Your task to perform on an android device: Open Android settings Image 0: 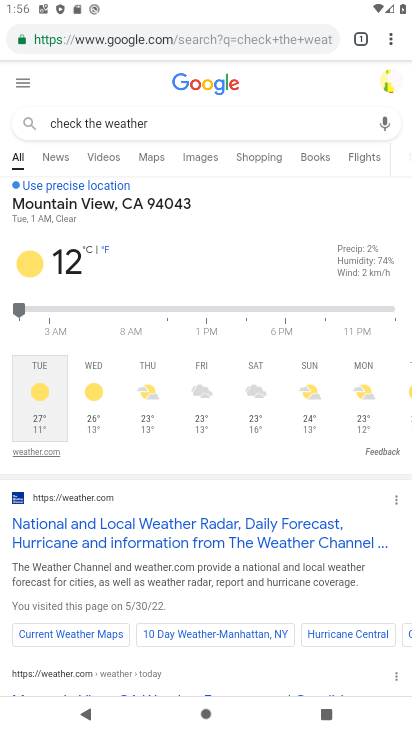
Step 0: press home button
Your task to perform on an android device: Open Android settings Image 1: 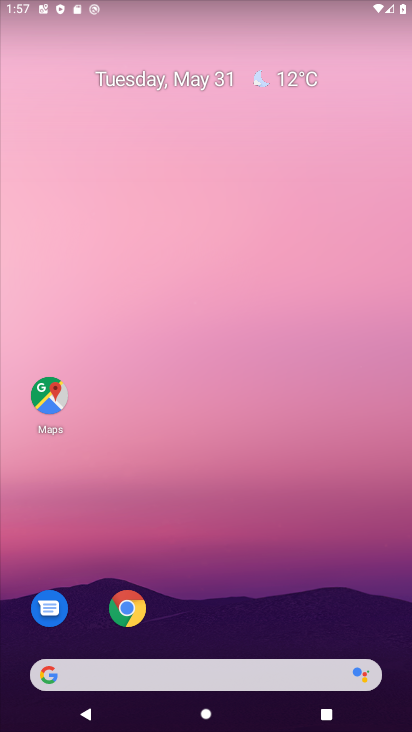
Step 1: drag from (277, 560) to (295, 166)
Your task to perform on an android device: Open Android settings Image 2: 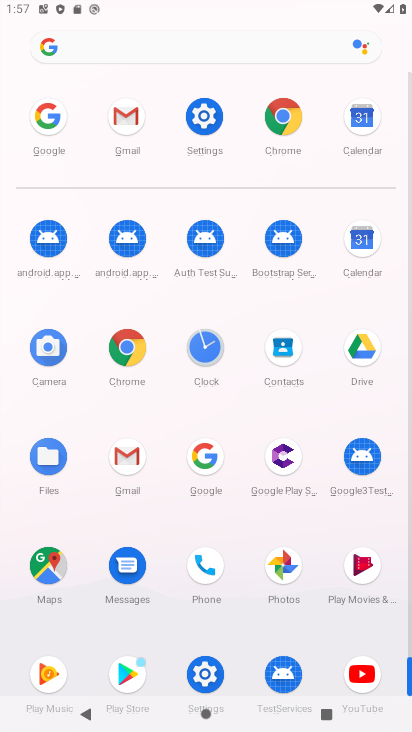
Step 2: click (218, 141)
Your task to perform on an android device: Open Android settings Image 3: 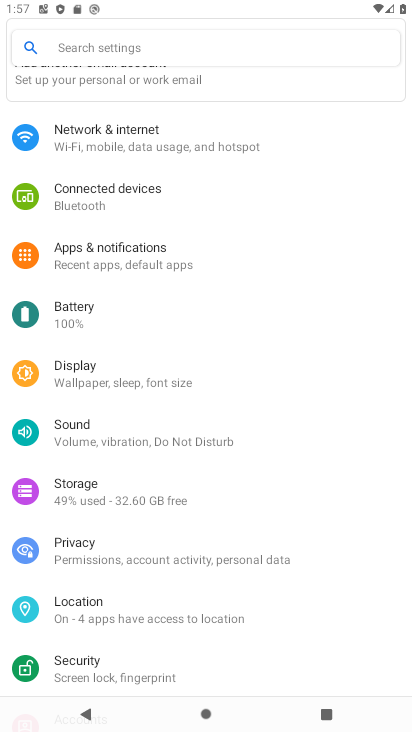
Step 3: drag from (163, 674) to (225, 283)
Your task to perform on an android device: Open Android settings Image 4: 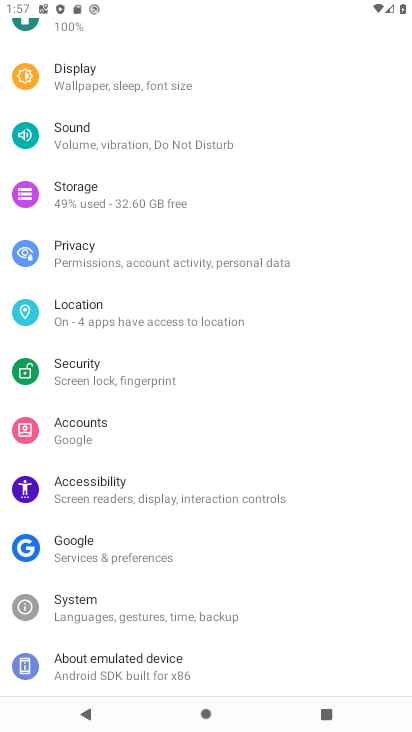
Step 4: drag from (220, 677) to (286, 228)
Your task to perform on an android device: Open Android settings Image 5: 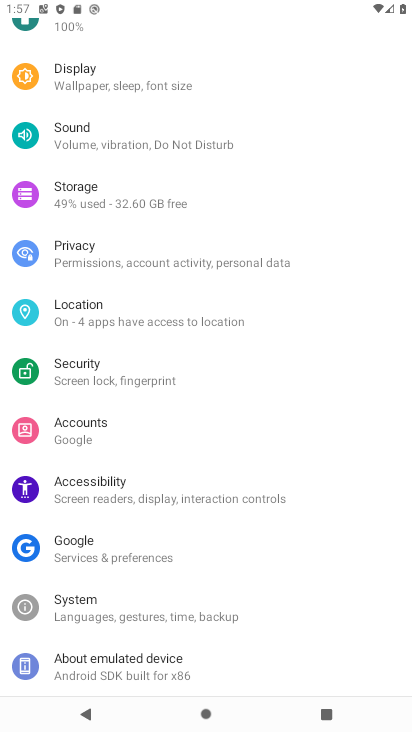
Step 5: click (139, 668)
Your task to perform on an android device: Open Android settings Image 6: 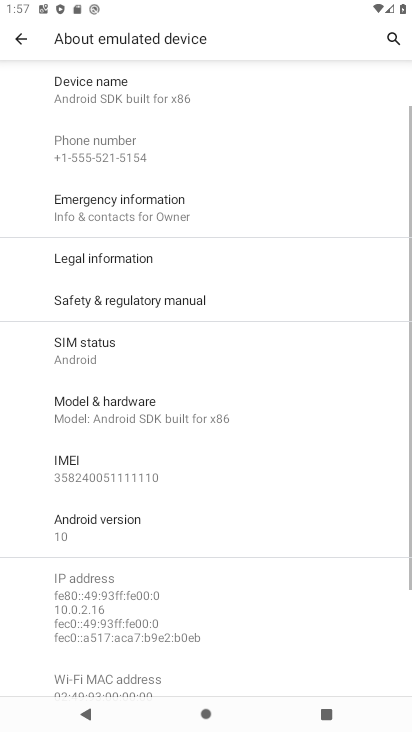
Step 6: click (135, 524)
Your task to perform on an android device: Open Android settings Image 7: 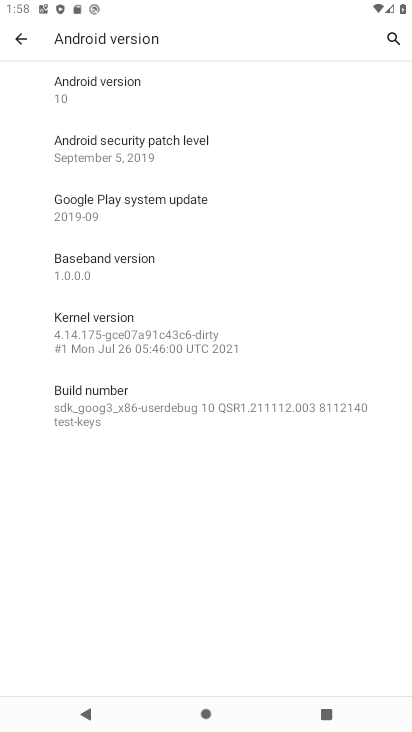
Step 7: task complete